Your task to perform on an android device: open the mobile data screen to see how much data has been used Image 0: 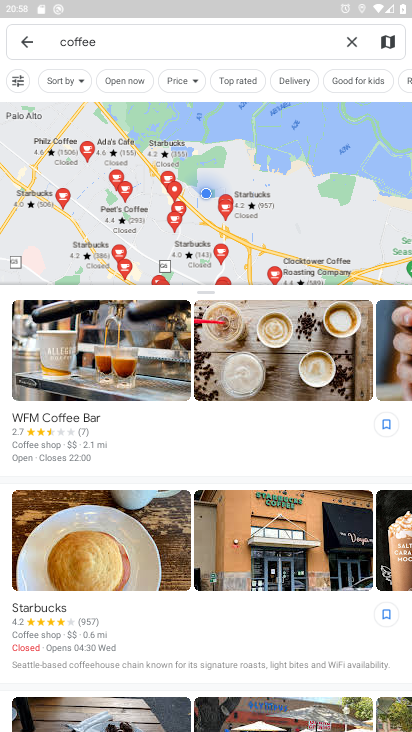
Step 0: press home button
Your task to perform on an android device: open the mobile data screen to see how much data has been used Image 1: 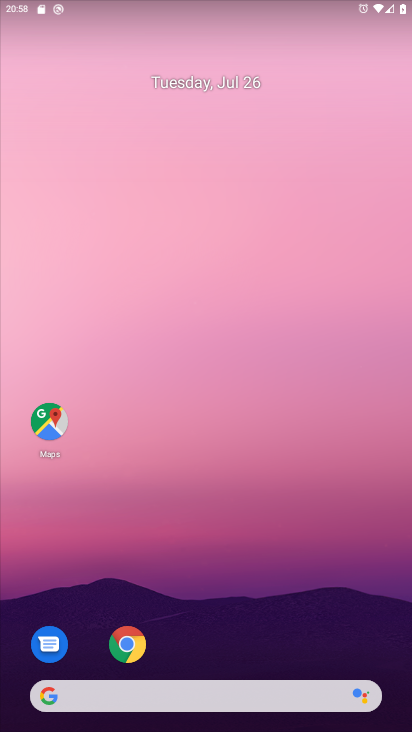
Step 1: drag from (191, 627) to (250, 150)
Your task to perform on an android device: open the mobile data screen to see how much data has been used Image 2: 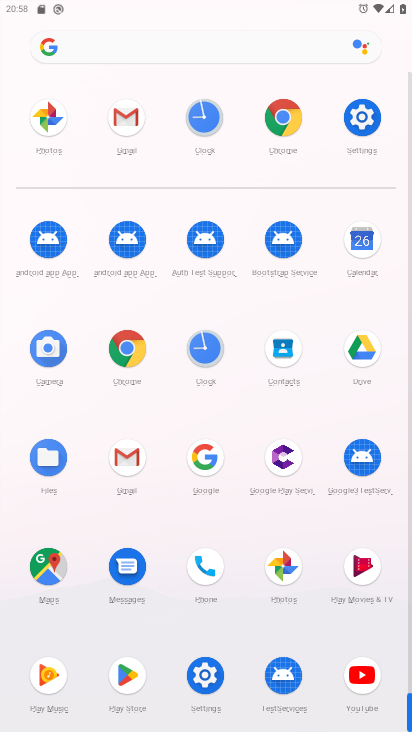
Step 2: click (364, 109)
Your task to perform on an android device: open the mobile data screen to see how much data has been used Image 3: 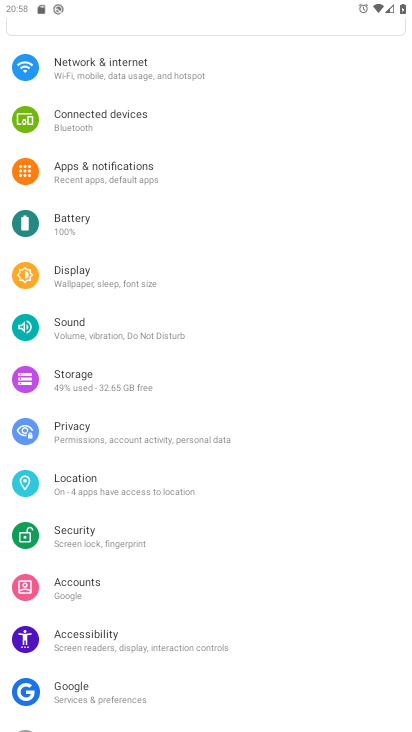
Step 3: click (100, 58)
Your task to perform on an android device: open the mobile data screen to see how much data has been used Image 4: 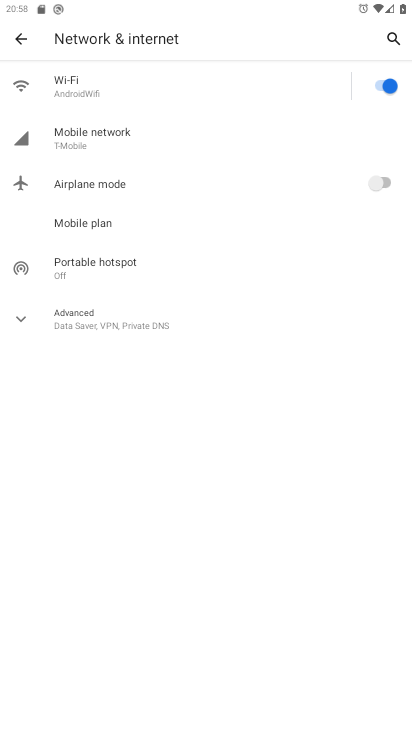
Step 4: click (79, 127)
Your task to perform on an android device: open the mobile data screen to see how much data has been used Image 5: 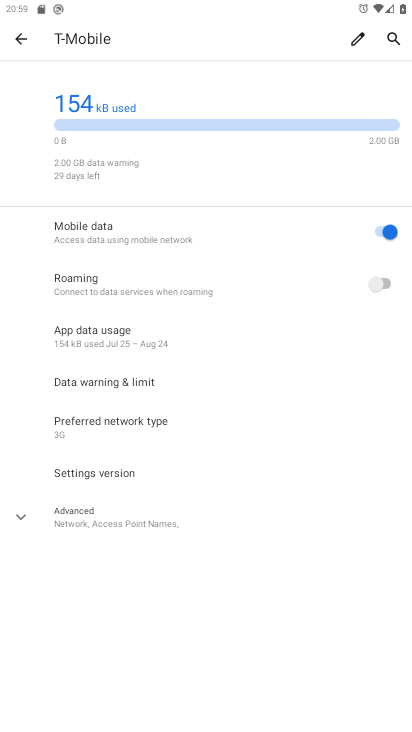
Step 5: task complete